Your task to perform on an android device: Go to internet settings Image 0: 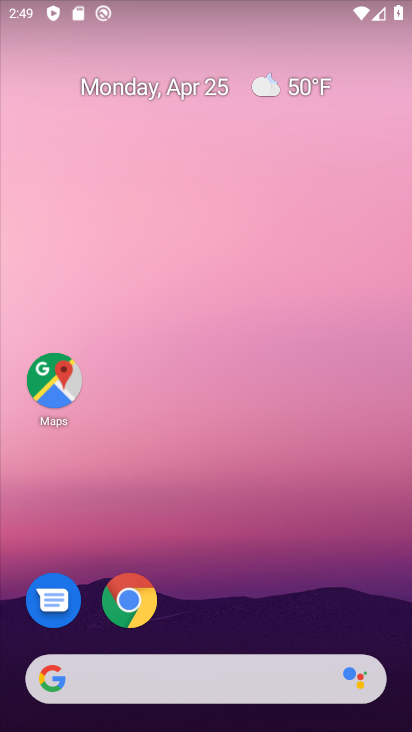
Step 0: drag from (336, 502) to (336, 109)
Your task to perform on an android device: Go to internet settings Image 1: 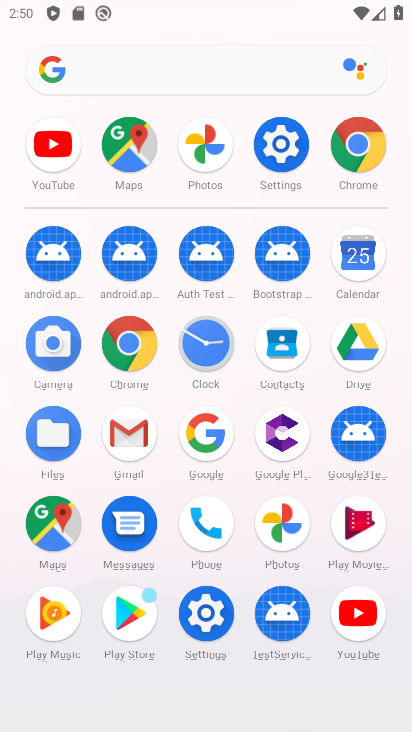
Step 1: click (280, 153)
Your task to perform on an android device: Go to internet settings Image 2: 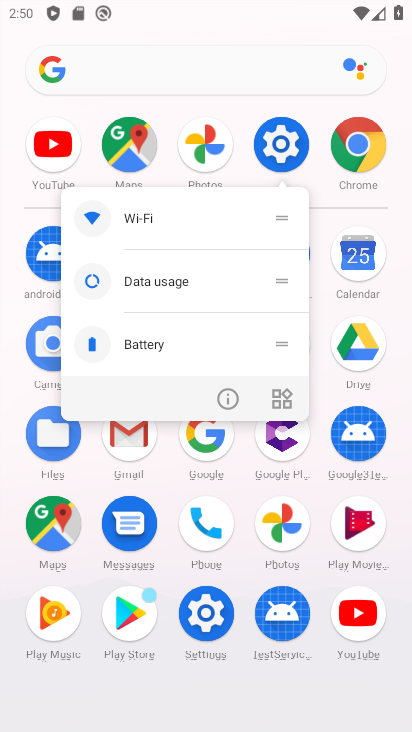
Step 2: click (283, 152)
Your task to perform on an android device: Go to internet settings Image 3: 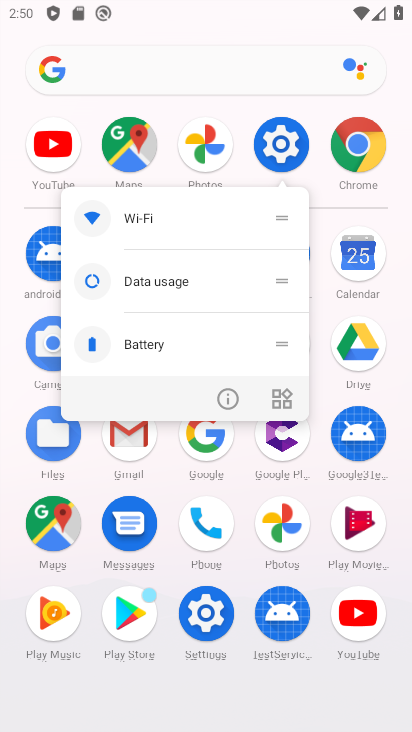
Step 3: click (274, 165)
Your task to perform on an android device: Go to internet settings Image 4: 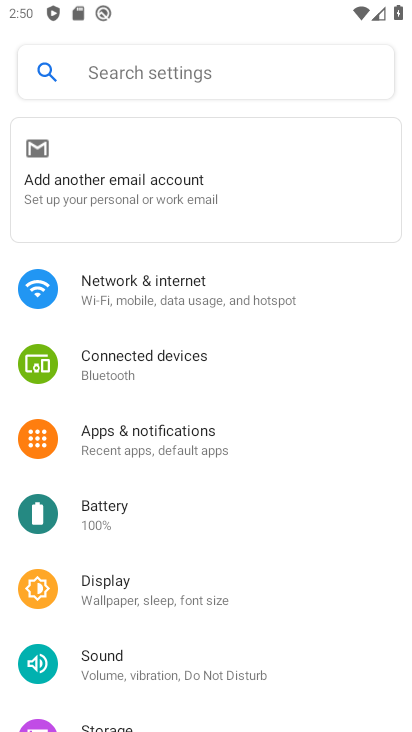
Step 4: click (156, 286)
Your task to perform on an android device: Go to internet settings Image 5: 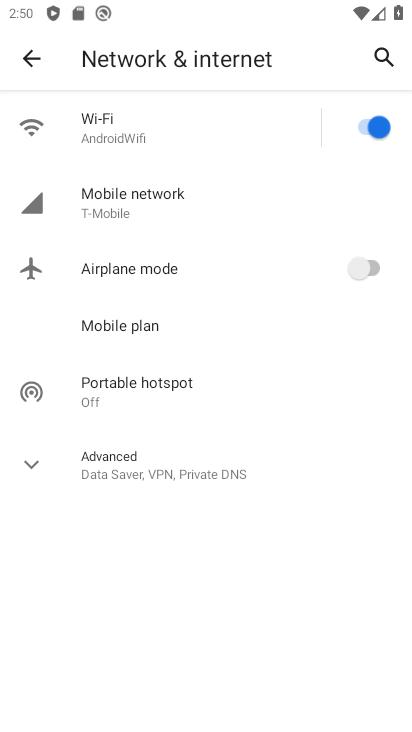
Step 5: click (200, 197)
Your task to perform on an android device: Go to internet settings Image 6: 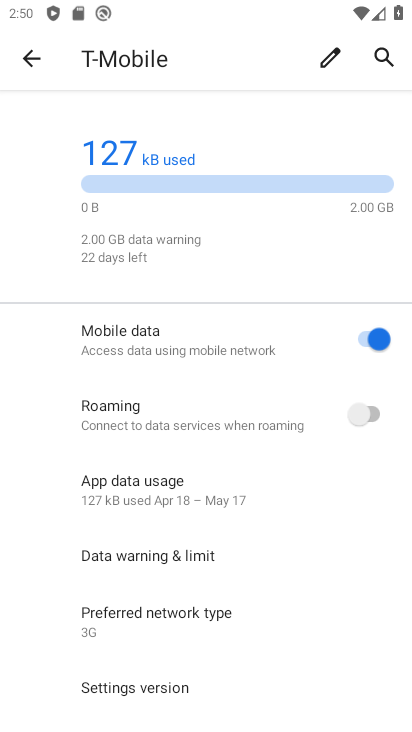
Step 6: task complete